Your task to perform on an android device: Search for sushi restaurants on Maps Image 0: 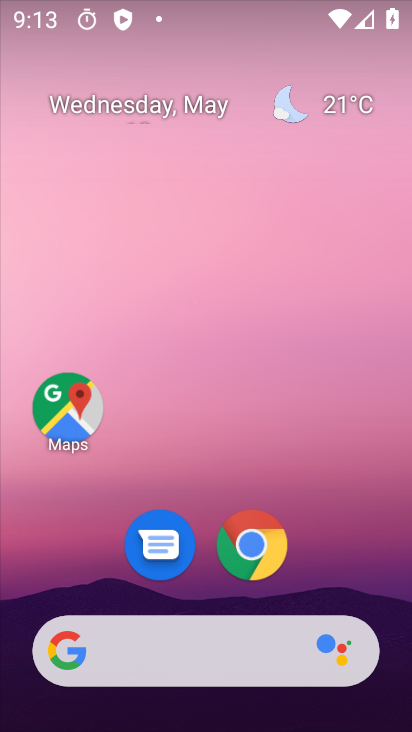
Step 0: drag from (409, 304) to (381, 26)
Your task to perform on an android device: Search for sushi restaurants on Maps Image 1: 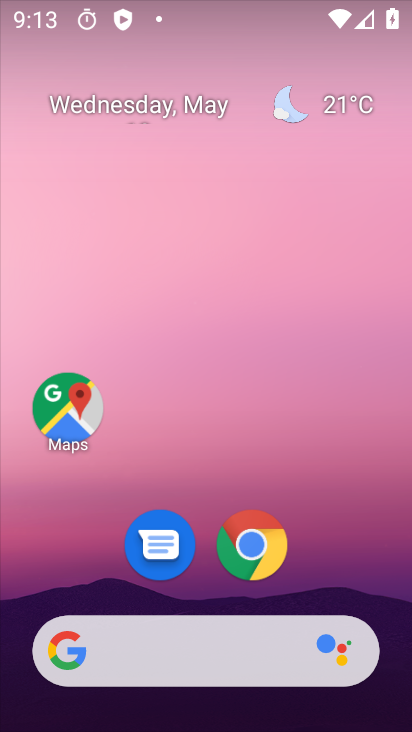
Step 1: drag from (310, 595) to (338, 22)
Your task to perform on an android device: Search for sushi restaurants on Maps Image 2: 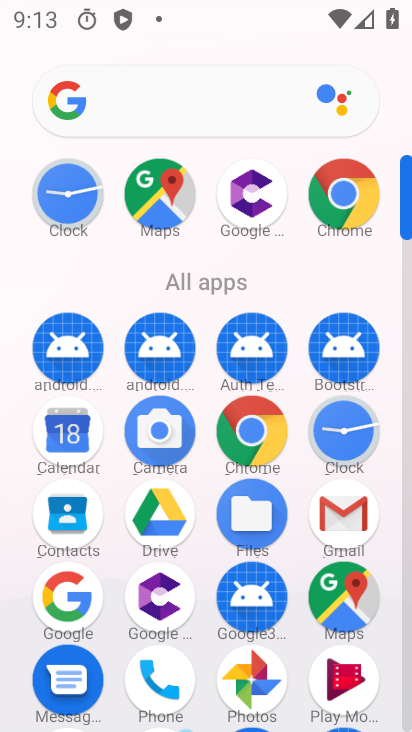
Step 2: click (339, 600)
Your task to perform on an android device: Search for sushi restaurants on Maps Image 3: 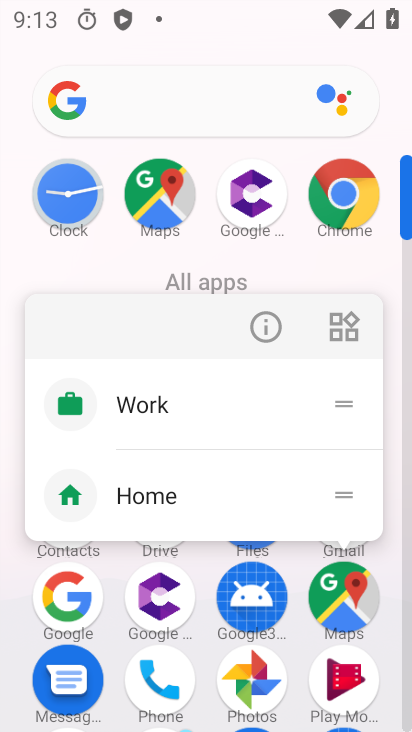
Step 3: click (353, 602)
Your task to perform on an android device: Search for sushi restaurants on Maps Image 4: 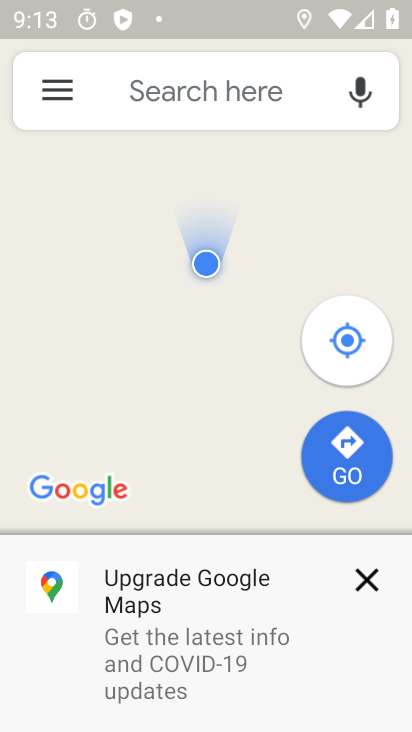
Step 4: click (210, 77)
Your task to perform on an android device: Search for sushi restaurants on Maps Image 5: 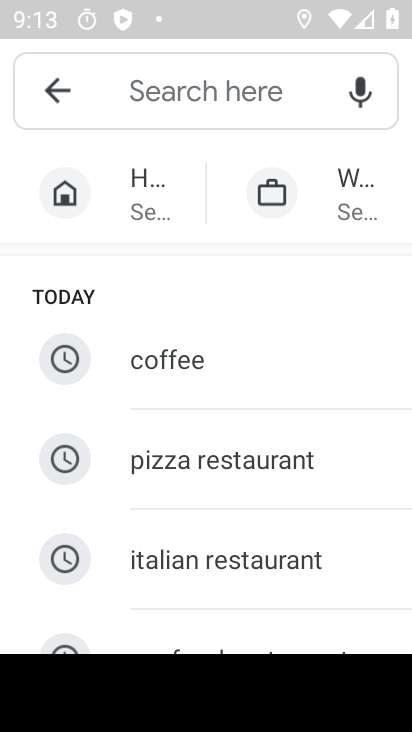
Step 5: type "sushi restaurant"
Your task to perform on an android device: Search for sushi restaurants on Maps Image 6: 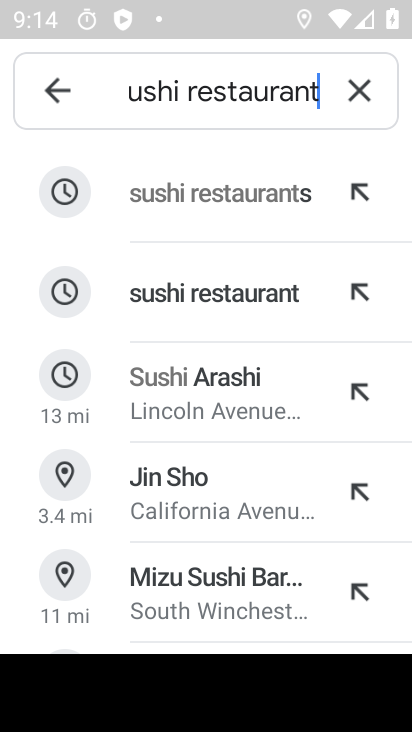
Step 6: click (251, 161)
Your task to perform on an android device: Search for sushi restaurants on Maps Image 7: 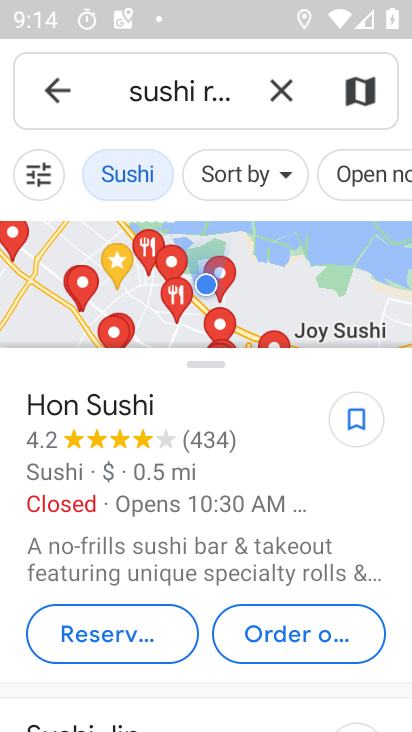
Step 7: task complete